Your task to perform on an android device: Go to accessibility settings Image 0: 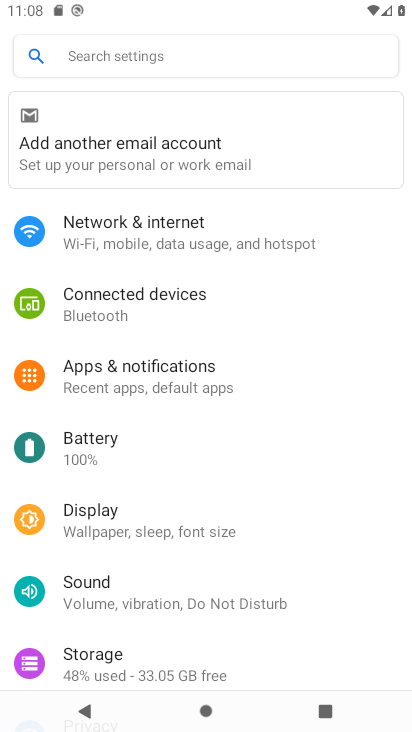
Step 0: drag from (271, 617) to (302, 344)
Your task to perform on an android device: Go to accessibility settings Image 1: 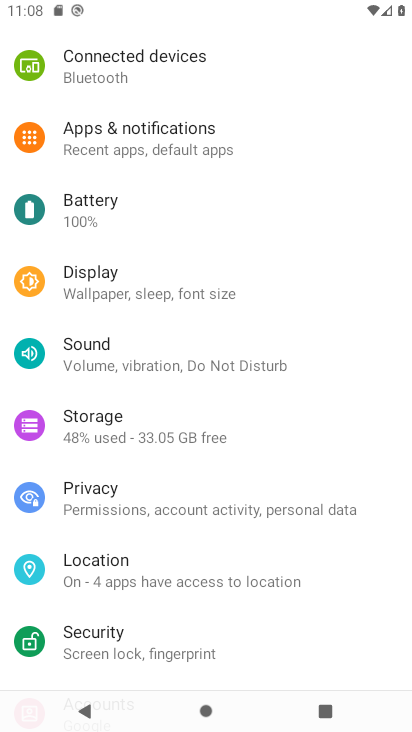
Step 1: drag from (351, 581) to (361, 313)
Your task to perform on an android device: Go to accessibility settings Image 2: 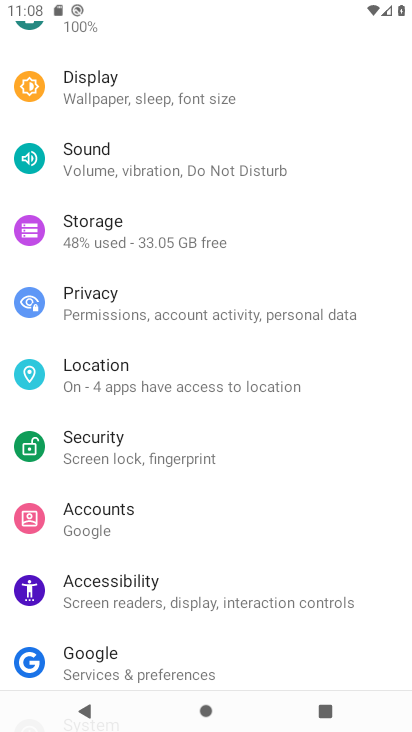
Step 2: click (70, 587)
Your task to perform on an android device: Go to accessibility settings Image 3: 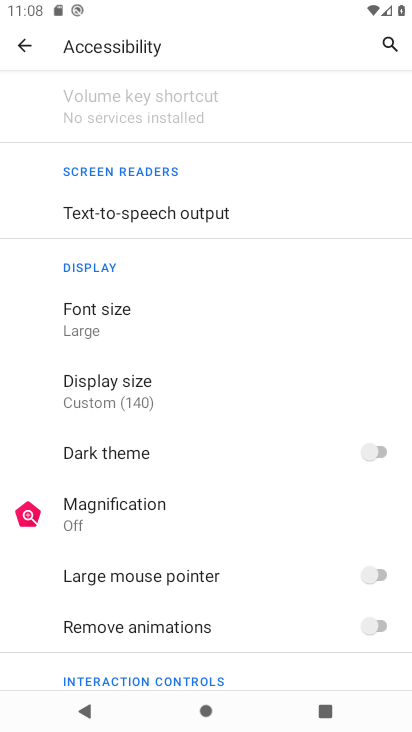
Step 3: task complete